Your task to perform on an android device: Search for apple airpods pro on target.com, select the first entry, add it to the cart, then select checkout. Image 0: 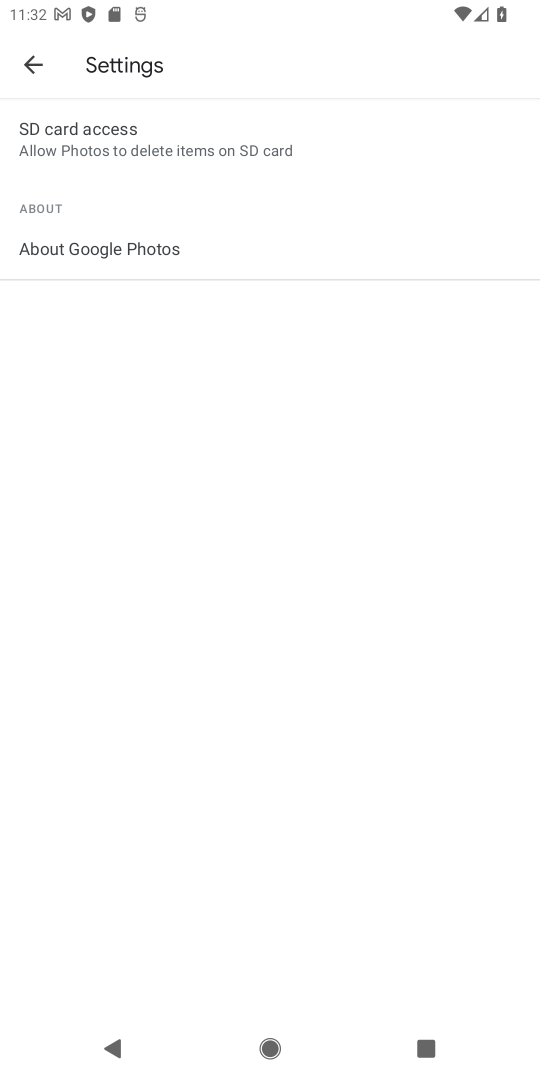
Step 0: press home button
Your task to perform on an android device: Search for apple airpods pro on target.com, select the first entry, add it to the cart, then select checkout. Image 1: 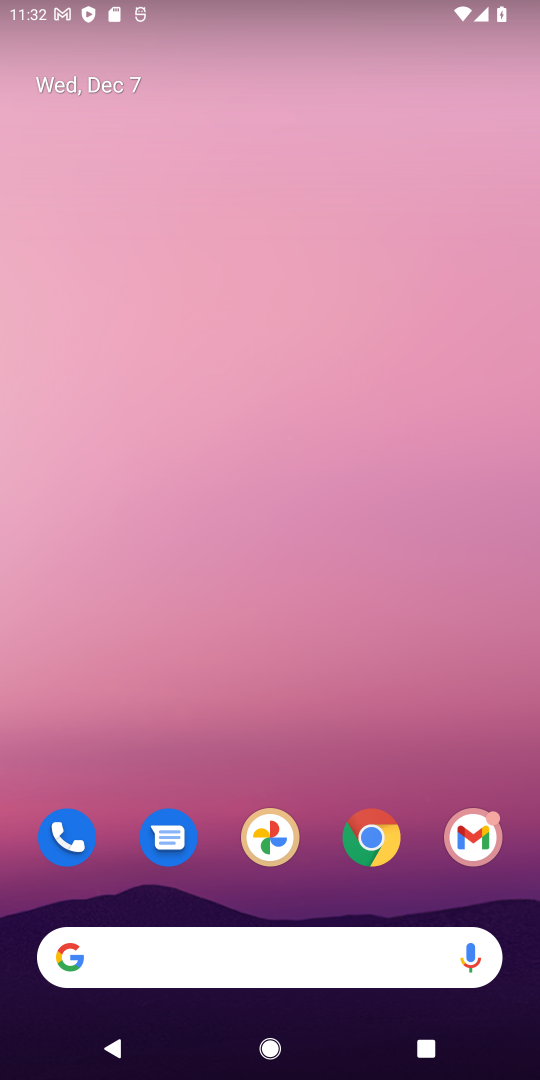
Step 1: click (371, 837)
Your task to perform on an android device: Search for apple airpods pro on target.com, select the first entry, add it to the cart, then select checkout. Image 2: 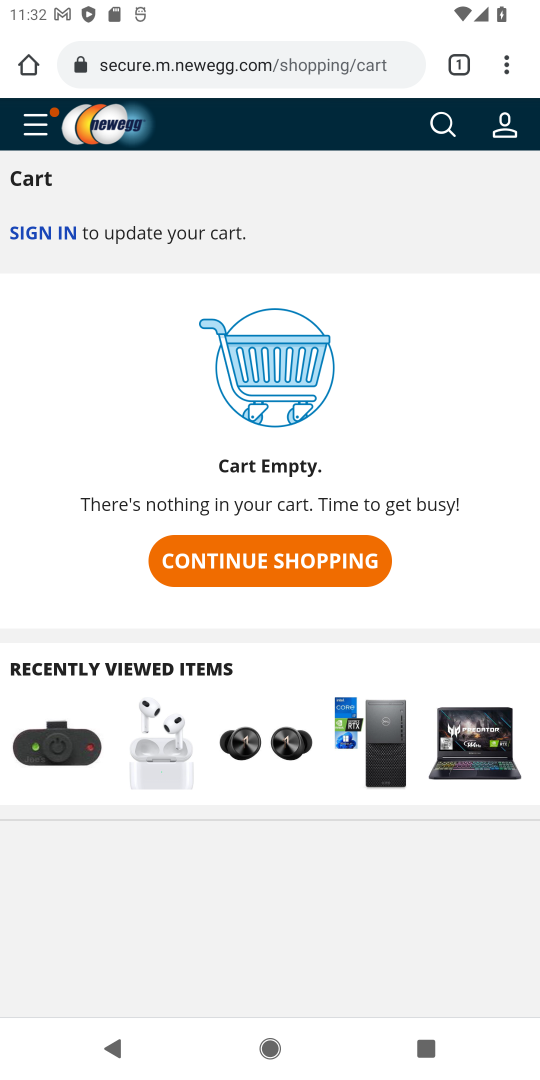
Step 2: click (282, 69)
Your task to perform on an android device: Search for apple airpods pro on target.com, select the first entry, add it to the cart, then select checkout. Image 3: 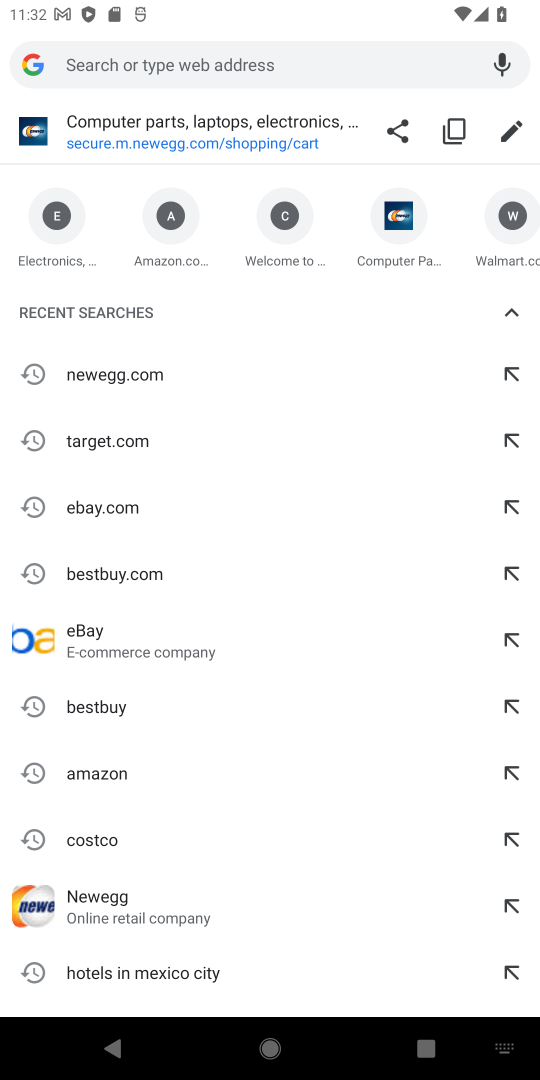
Step 3: click (97, 439)
Your task to perform on an android device: Search for apple airpods pro on target.com, select the first entry, add it to the cart, then select checkout. Image 4: 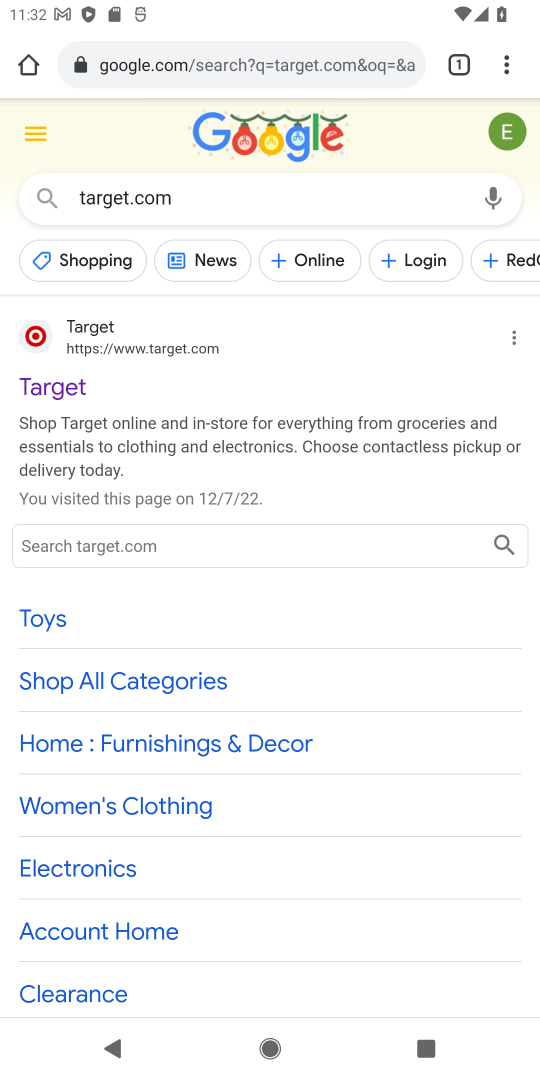
Step 4: click (118, 354)
Your task to perform on an android device: Search for apple airpods pro on target.com, select the first entry, add it to the cart, then select checkout. Image 5: 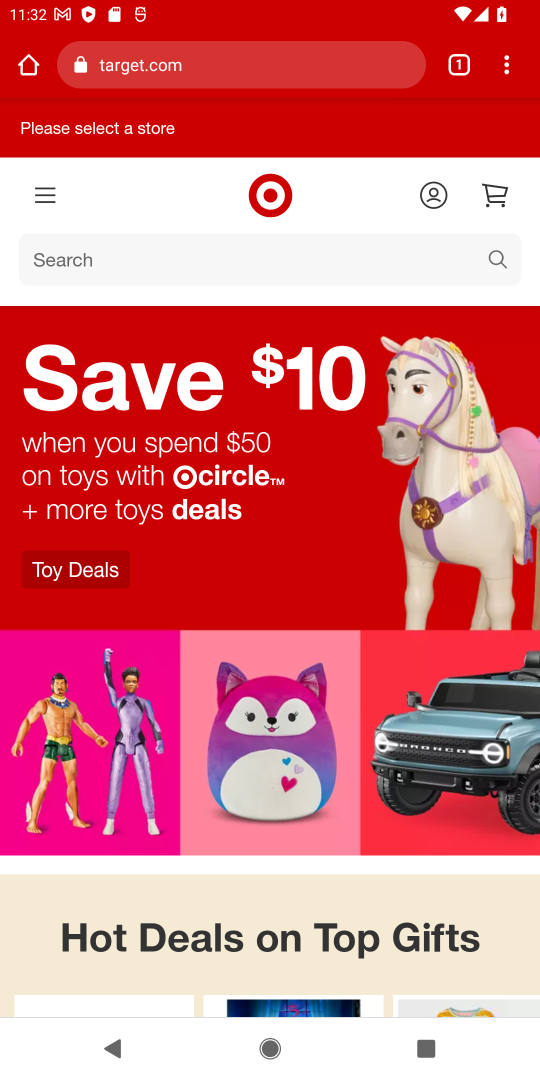
Step 5: click (498, 253)
Your task to perform on an android device: Search for apple airpods pro on target.com, select the first entry, add it to the cart, then select checkout. Image 6: 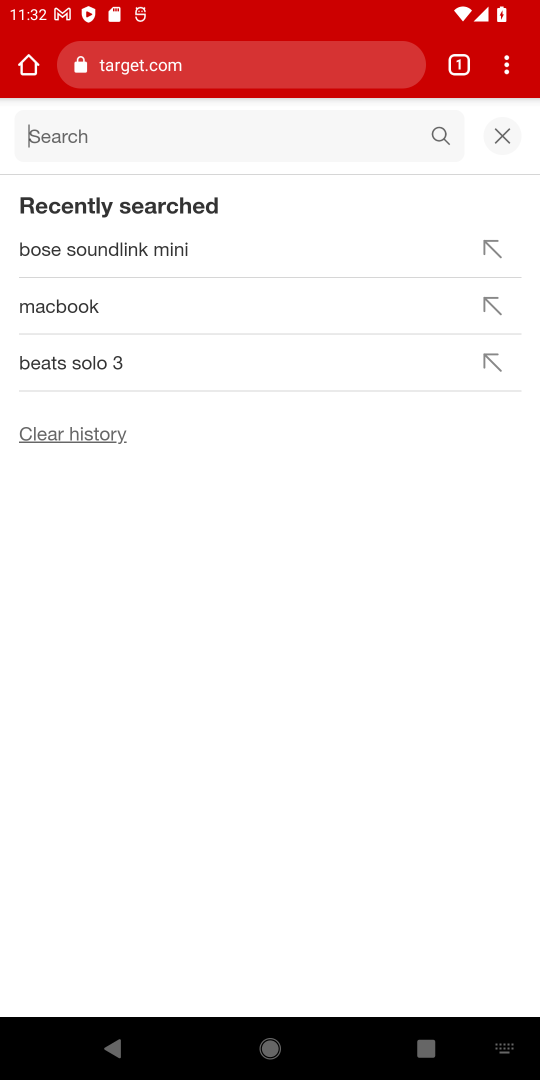
Step 6: type "apple airpods pro"
Your task to perform on an android device: Search for apple airpods pro on target.com, select the first entry, add it to the cart, then select checkout. Image 7: 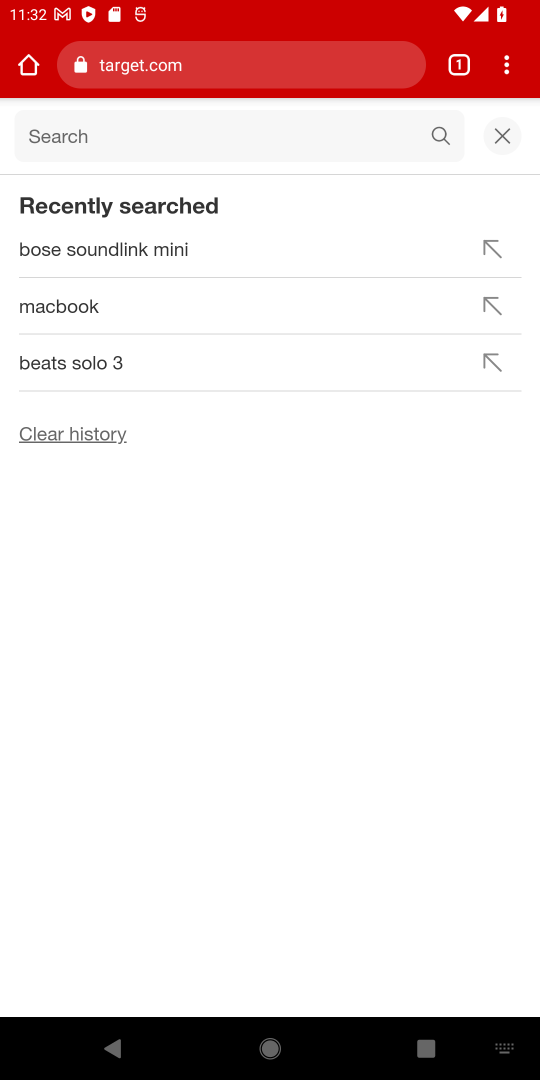
Step 7: press enter
Your task to perform on an android device: Search for apple airpods pro on target.com, select the first entry, add it to the cart, then select checkout. Image 8: 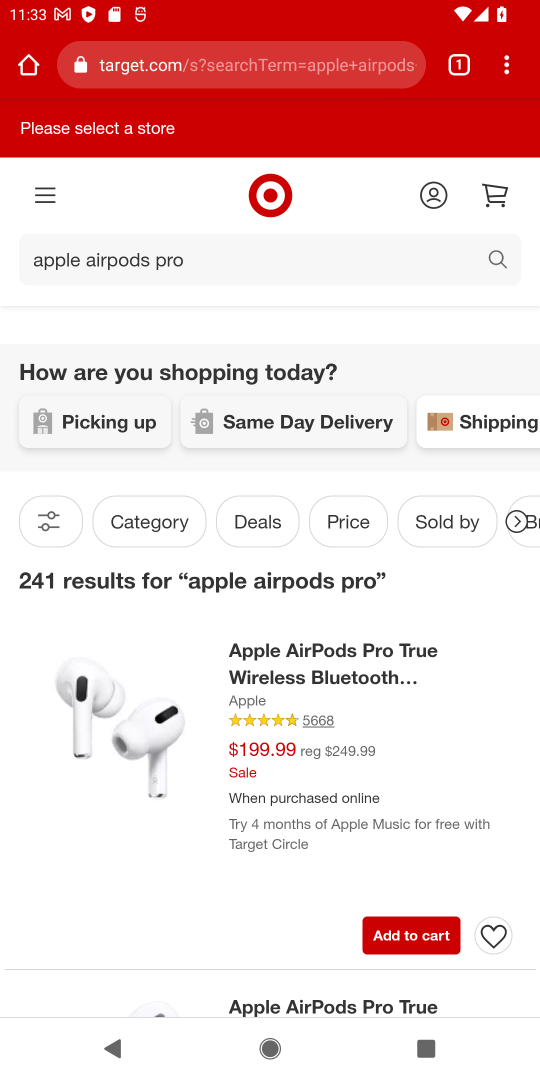
Step 8: click (118, 684)
Your task to perform on an android device: Search for apple airpods pro on target.com, select the first entry, add it to the cart, then select checkout. Image 9: 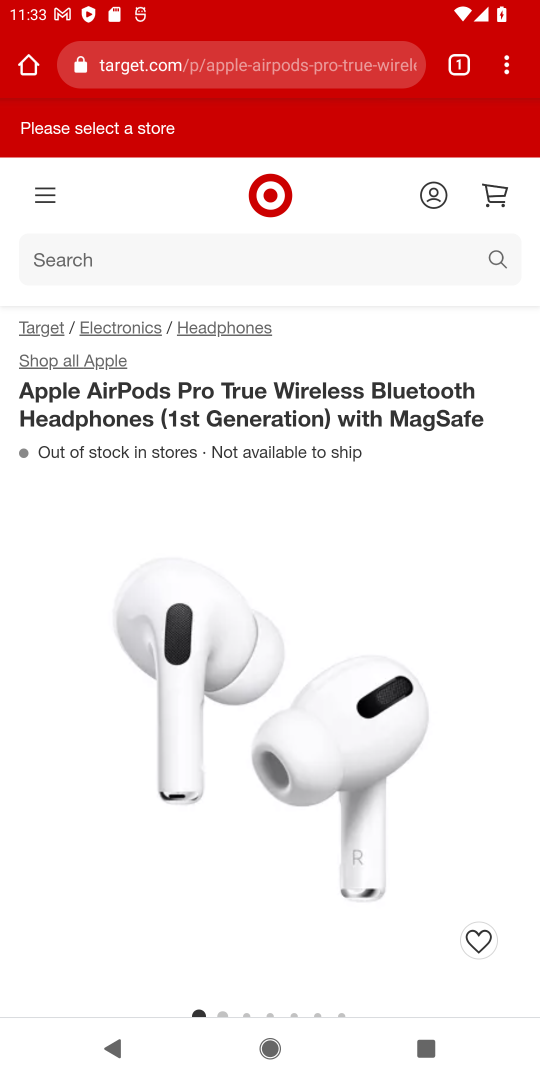
Step 9: drag from (375, 775) to (452, 242)
Your task to perform on an android device: Search for apple airpods pro on target.com, select the first entry, add it to the cart, then select checkout. Image 10: 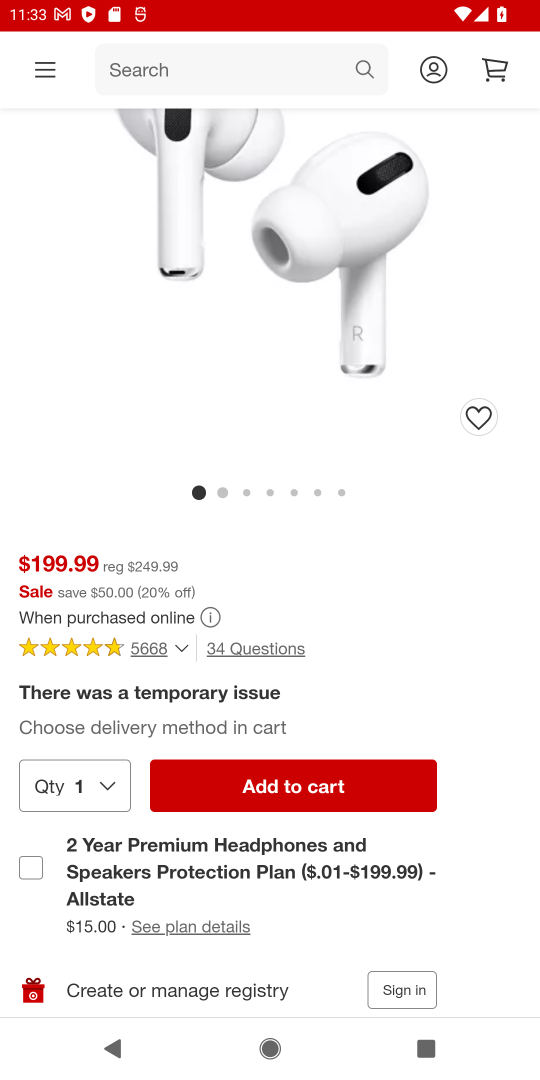
Step 10: click (357, 785)
Your task to perform on an android device: Search for apple airpods pro on target.com, select the first entry, add it to the cart, then select checkout. Image 11: 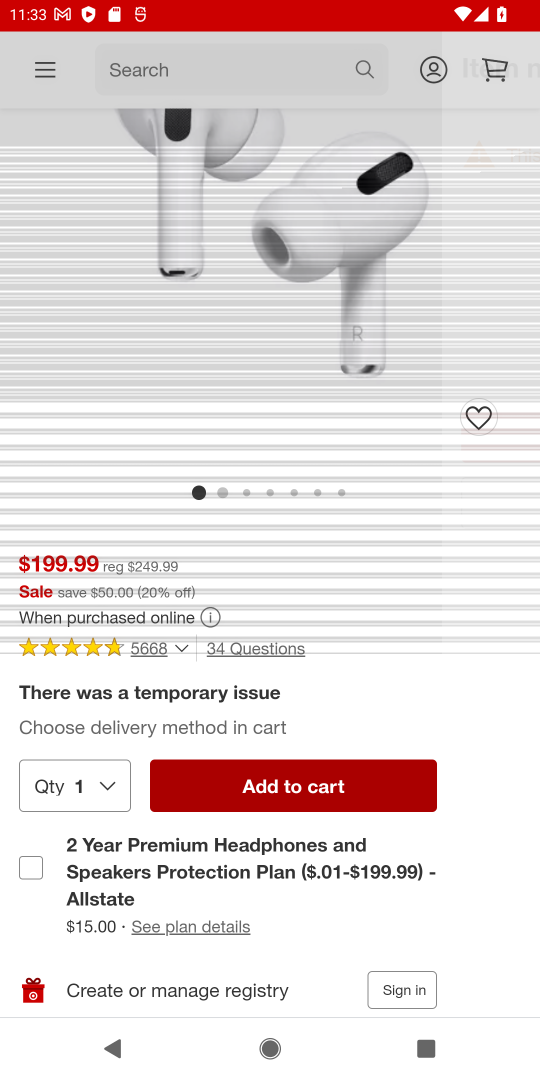
Step 11: click (298, 790)
Your task to perform on an android device: Search for apple airpods pro on target.com, select the first entry, add it to the cart, then select checkout. Image 12: 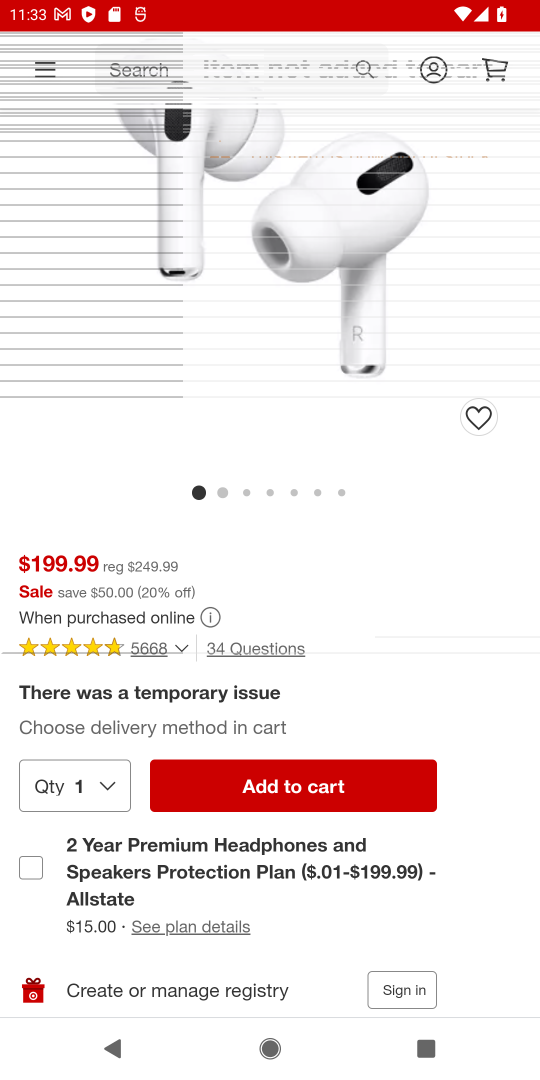
Step 12: click (298, 790)
Your task to perform on an android device: Search for apple airpods pro on target.com, select the first entry, add it to the cart, then select checkout. Image 13: 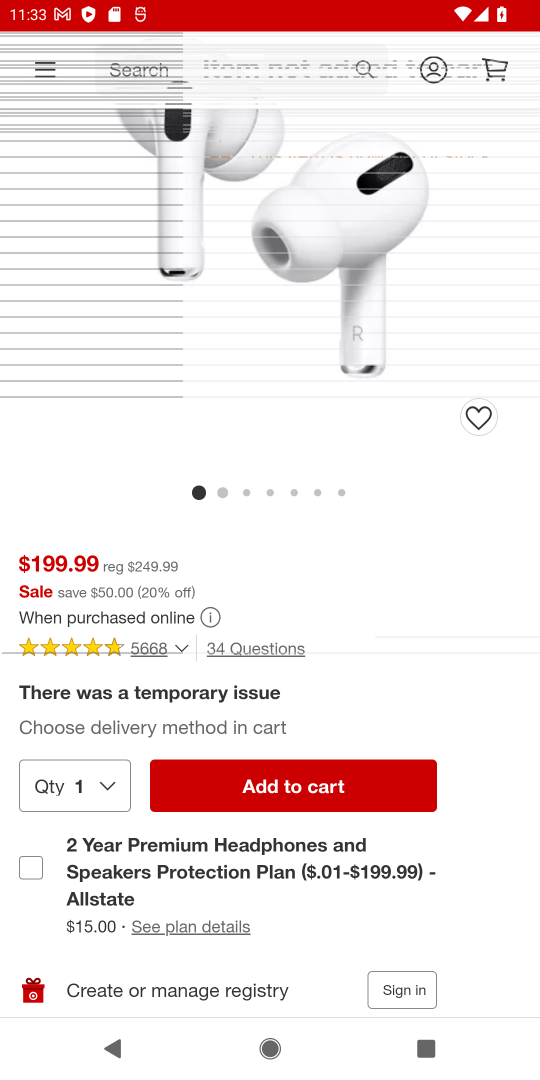
Step 13: click (269, 790)
Your task to perform on an android device: Search for apple airpods pro on target.com, select the first entry, add it to the cart, then select checkout. Image 14: 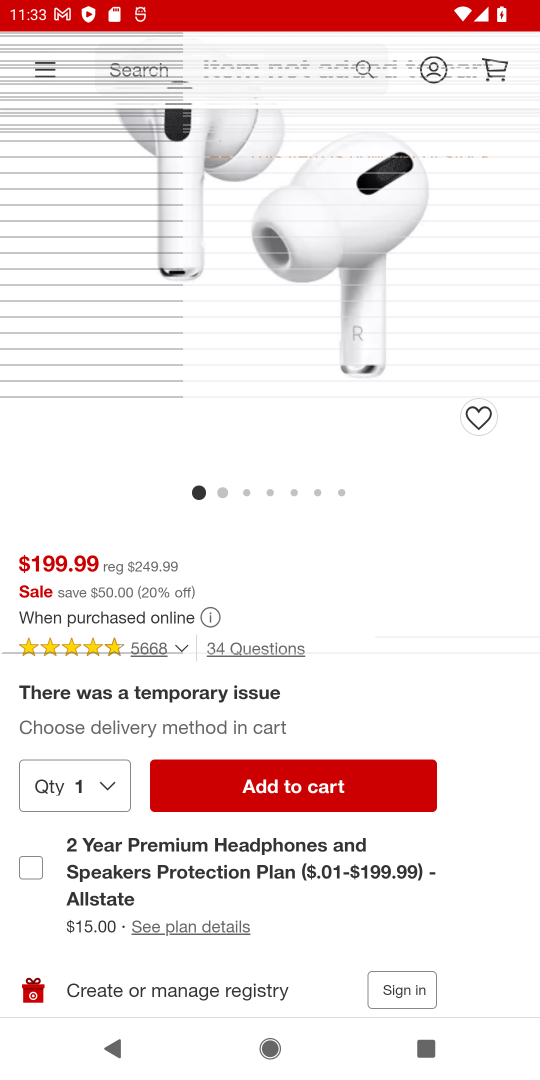
Step 14: press back button
Your task to perform on an android device: Search for apple airpods pro on target.com, select the first entry, add it to the cart, then select checkout. Image 15: 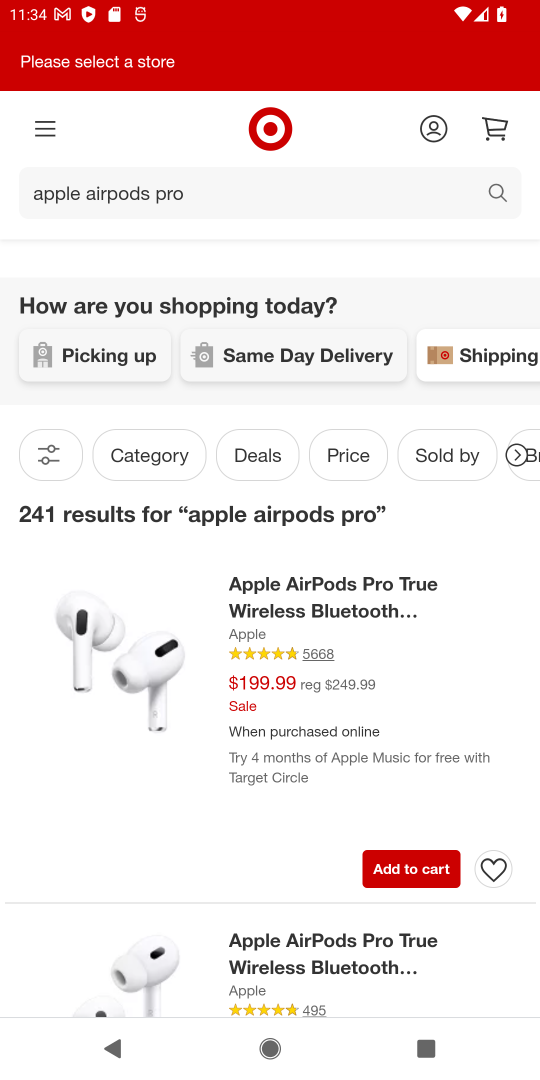
Step 15: click (498, 120)
Your task to perform on an android device: Search for apple airpods pro on target.com, select the first entry, add it to the cart, then select checkout. Image 16: 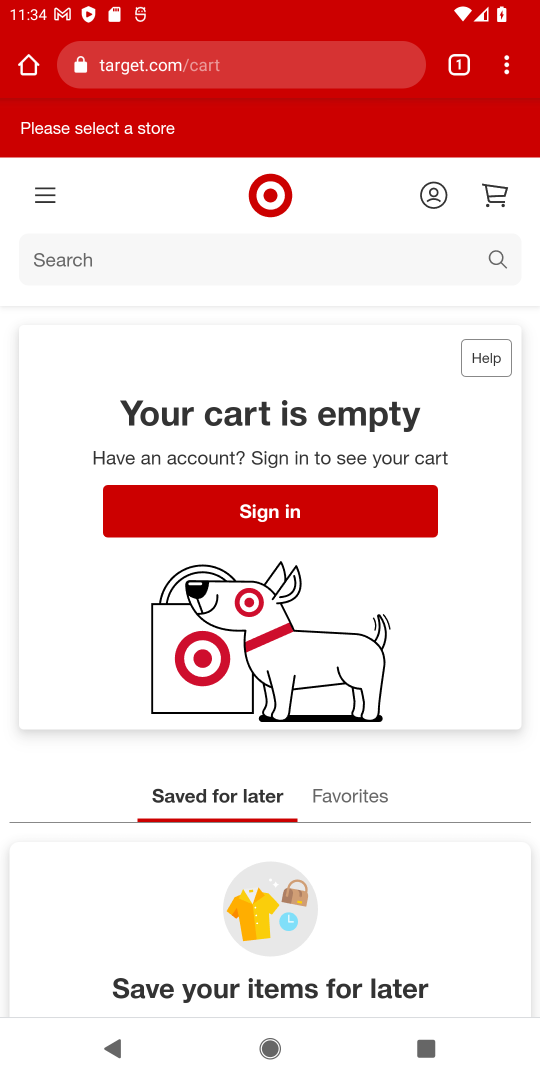
Step 16: click (497, 261)
Your task to perform on an android device: Search for apple airpods pro on target.com, select the first entry, add it to the cart, then select checkout. Image 17: 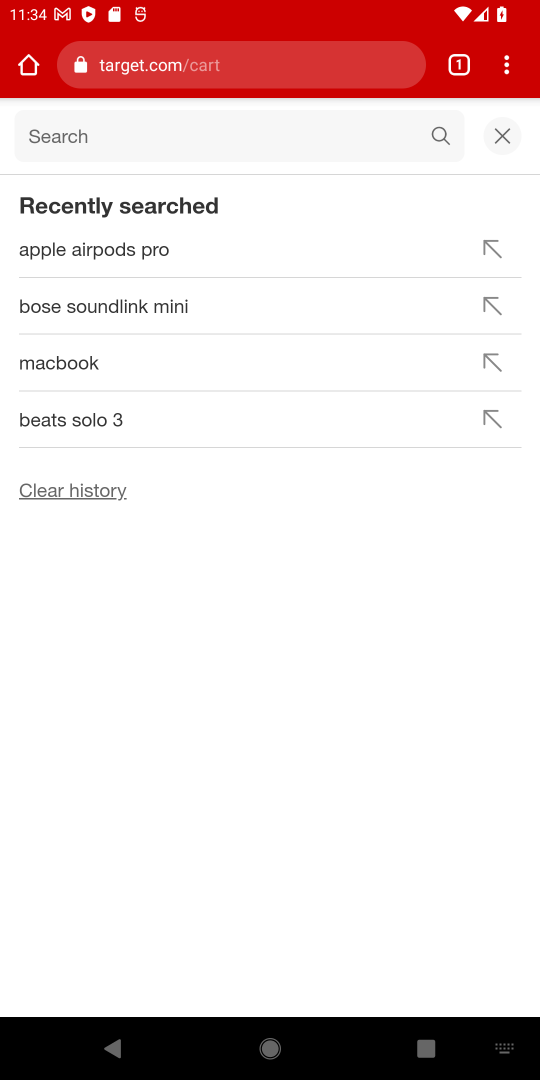
Step 17: click (103, 255)
Your task to perform on an android device: Search for apple airpods pro on target.com, select the first entry, add it to the cart, then select checkout. Image 18: 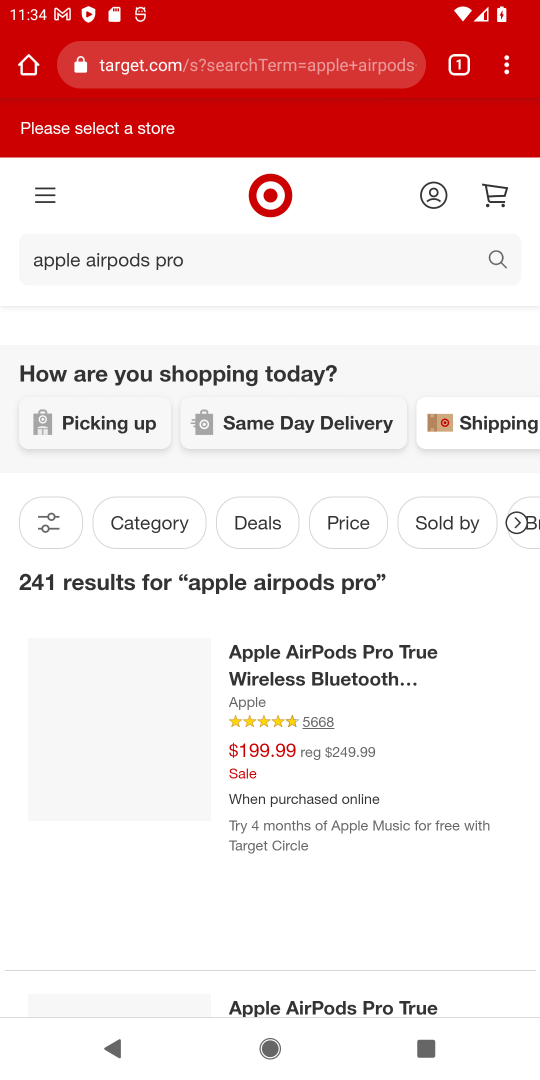
Step 18: drag from (435, 711) to (406, 503)
Your task to perform on an android device: Search for apple airpods pro on target.com, select the first entry, add it to the cart, then select checkout. Image 19: 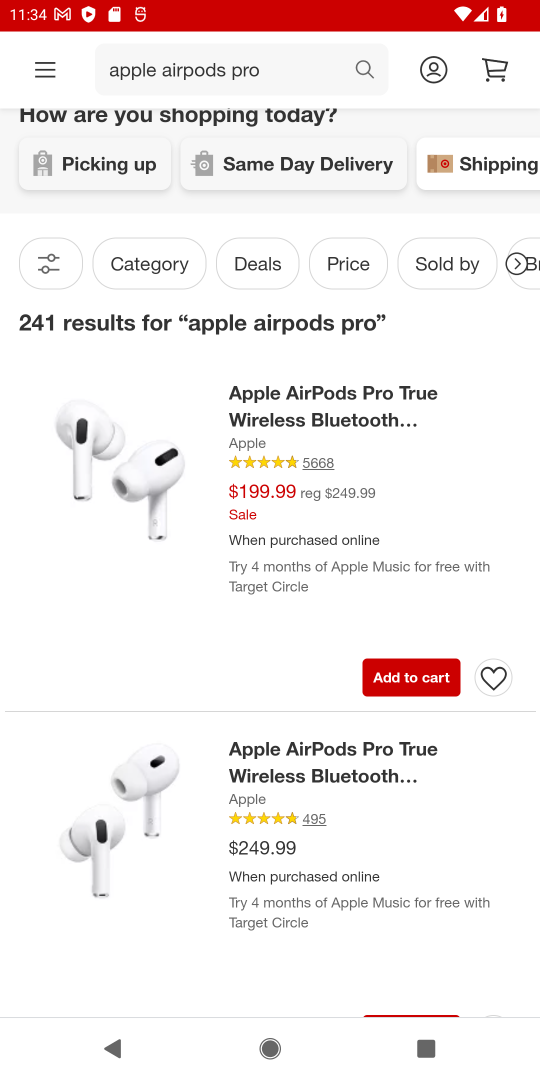
Step 19: click (114, 464)
Your task to perform on an android device: Search for apple airpods pro on target.com, select the first entry, add it to the cart, then select checkout. Image 20: 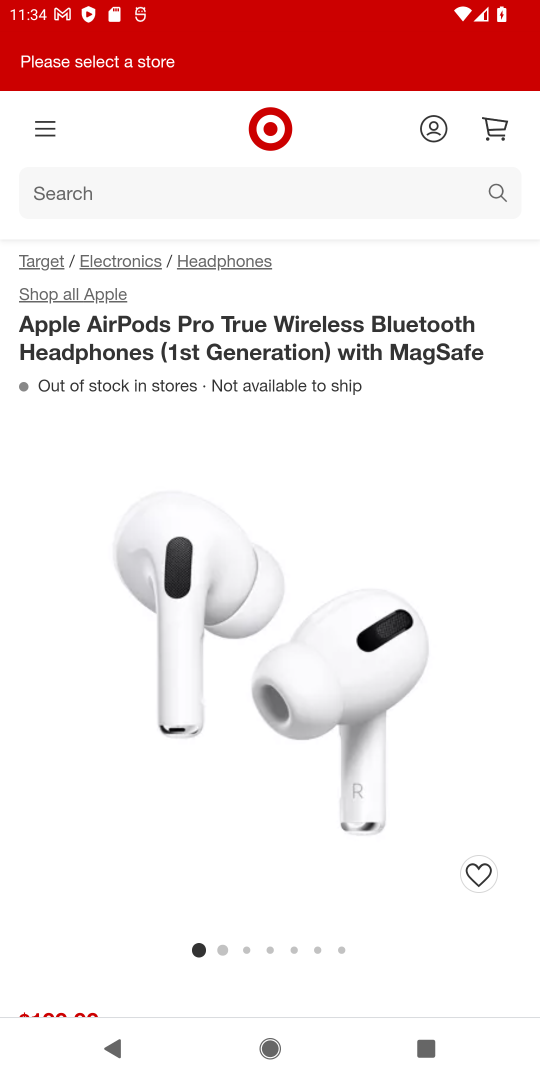
Step 20: drag from (375, 604) to (456, 102)
Your task to perform on an android device: Search for apple airpods pro on target.com, select the first entry, add it to the cart, then select checkout. Image 21: 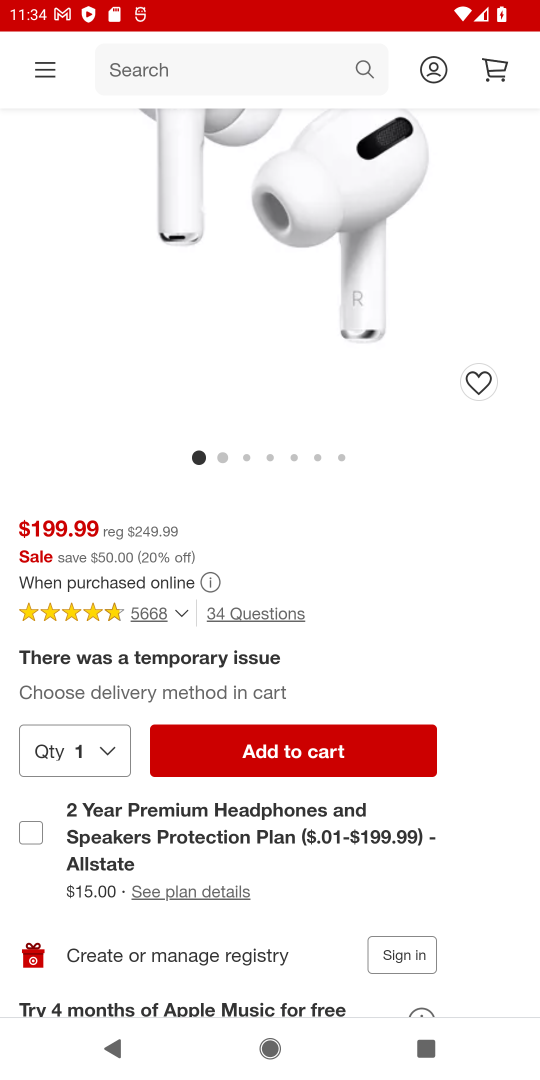
Step 21: click (318, 742)
Your task to perform on an android device: Search for apple airpods pro on target.com, select the first entry, add it to the cart, then select checkout. Image 22: 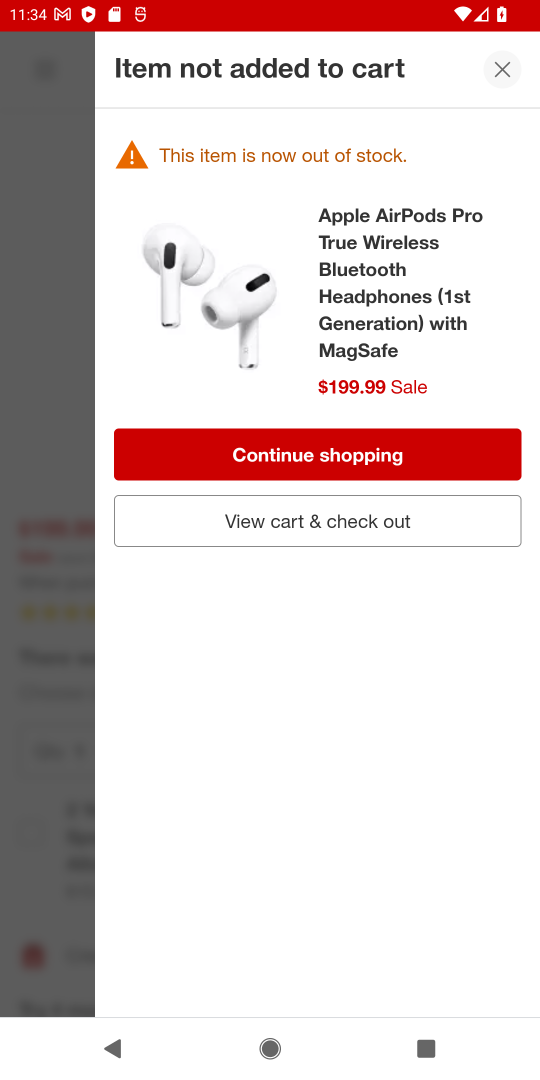
Step 22: click (502, 69)
Your task to perform on an android device: Search for apple airpods pro on target.com, select the first entry, add it to the cart, then select checkout. Image 23: 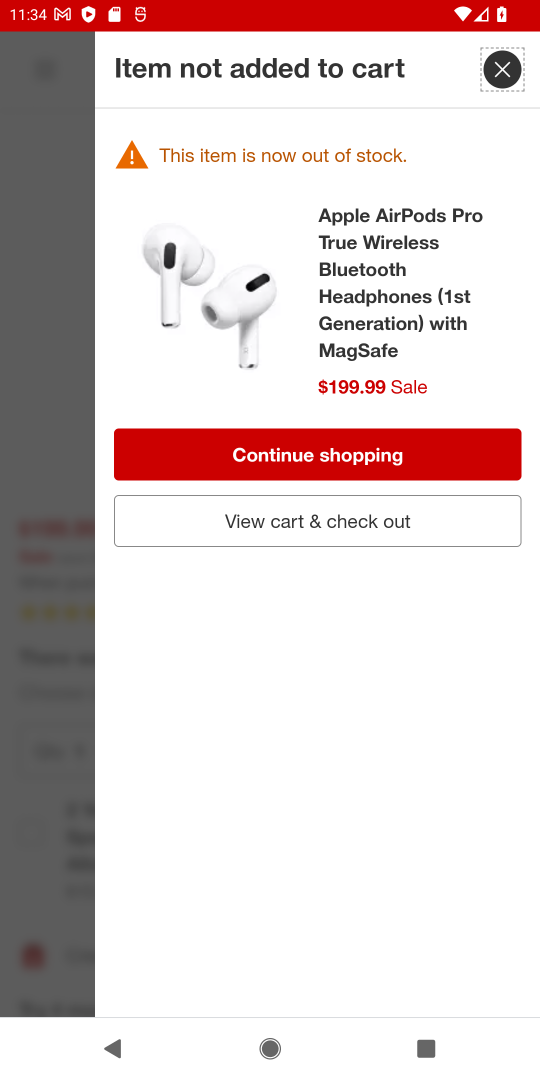
Step 23: click (512, 64)
Your task to perform on an android device: Search for apple airpods pro on target.com, select the first entry, add it to the cart, then select checkout. Image 24: 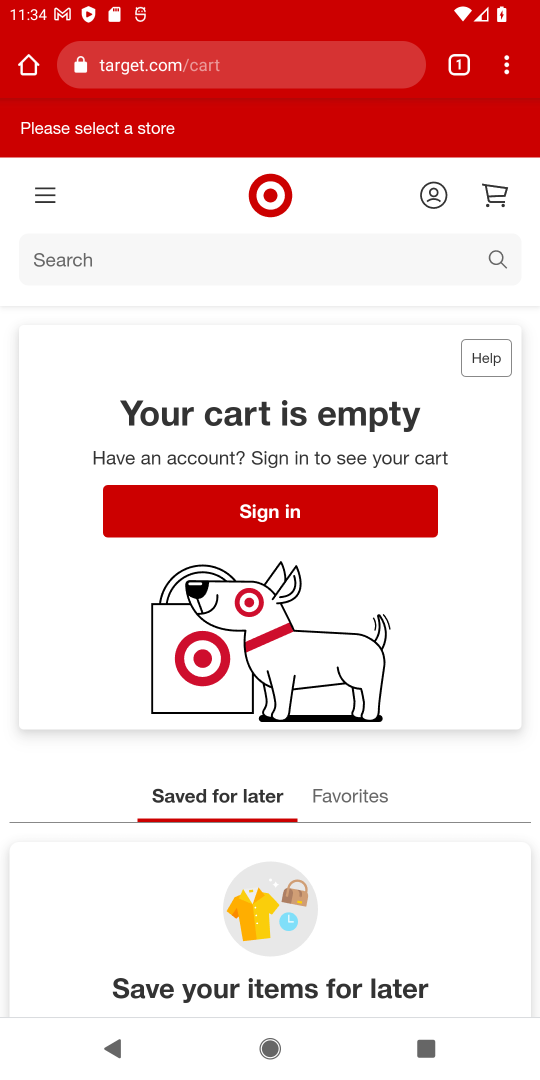
Step 24: click (500, 256)
Your task to perform on an android device: Search for apple airpods pro on target.com, select the first entry, add it to the cart, then select checkout. Image 25: 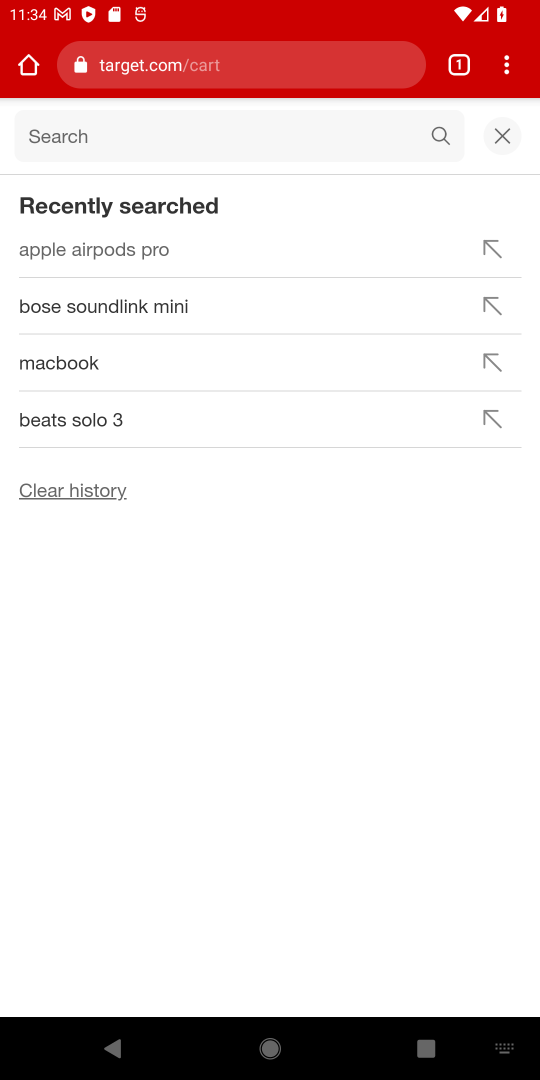
Step 25: click (139, 251)
Your task to perform on an android device: Search for apple airpods pro on target.com, select the first entry, add it to the cart, then select checkout. Image 26: 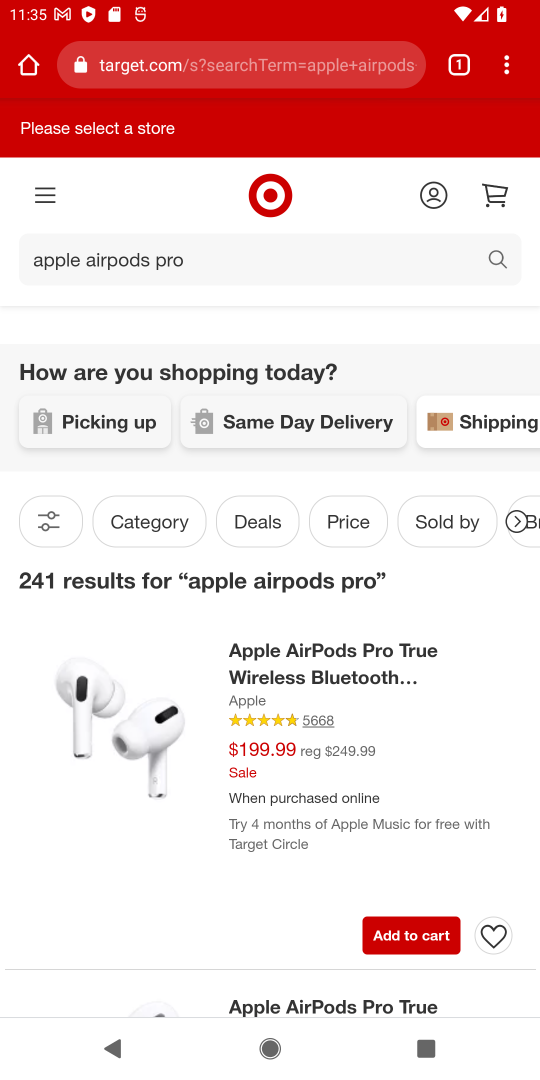
Step 26: drag from (398, 719) to (333, 175)
Your task to perform on an android device: Search for apple airpods pro on target.com, select the first entry, add it to the cart, then select checkout. Image 27: 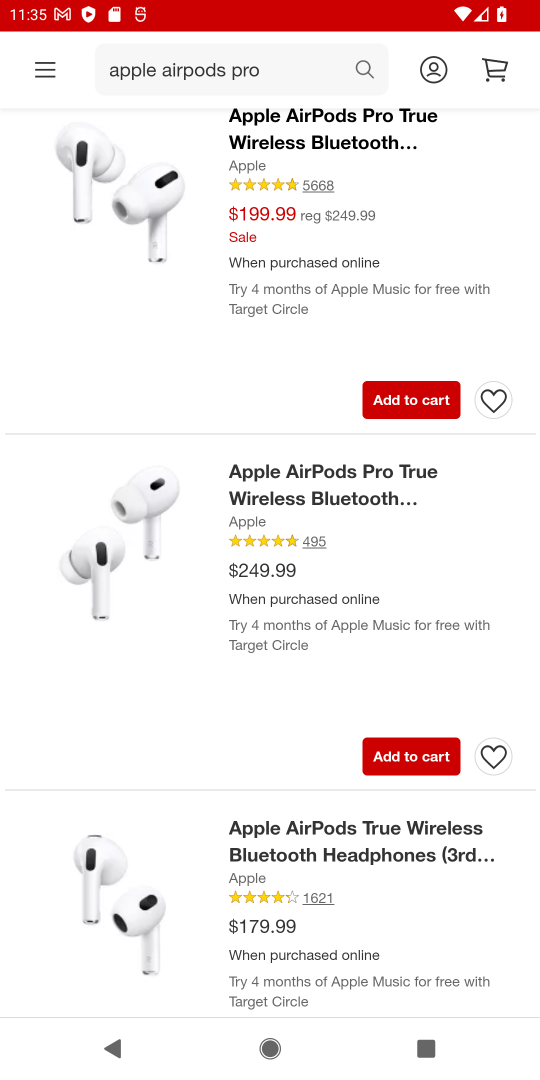
Step 27: click (124, 548)
Your task to perform on an android device: Search for apple airpods pro on target.com, select the first entry, add it to the cart, then select checkout. Image 28: 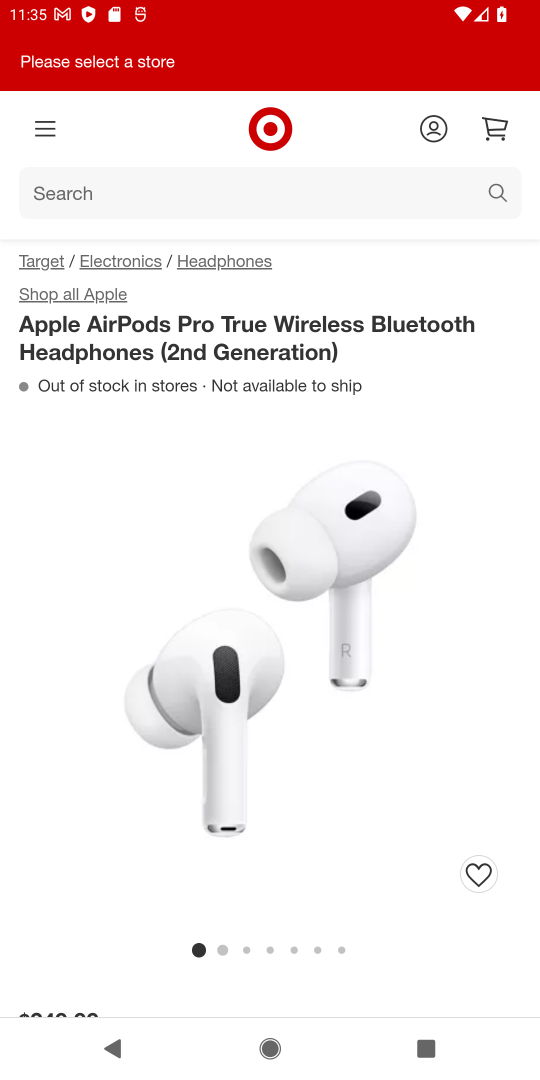
Step 28: drag from (412, 686) to (366, 254)
Your task to perform on an android device: Search for apple airpods pro on target.com, select the first entry, add it to the cart, then select checkout. Image 29: 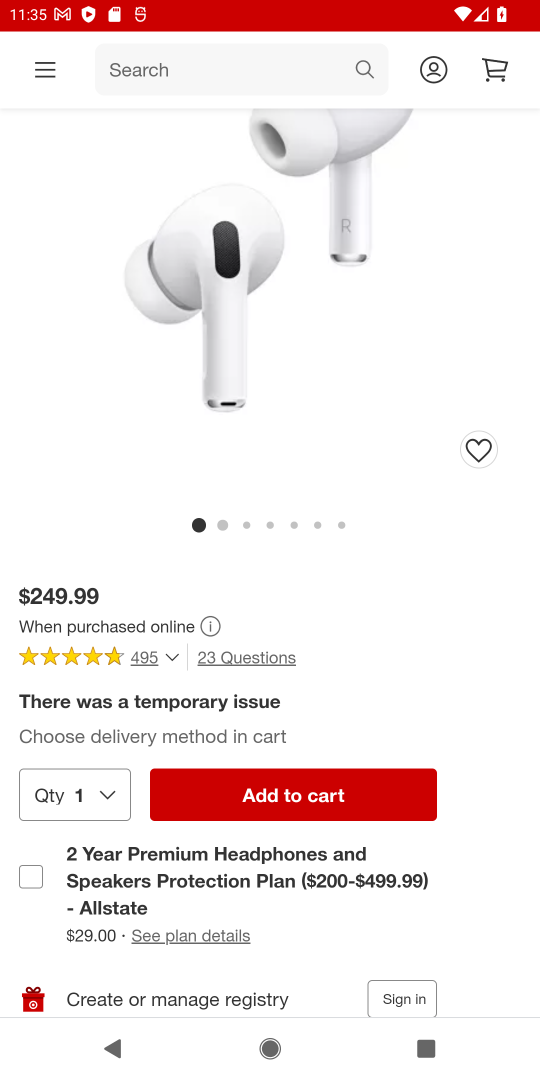
Step 29: click (348, 794)
Your task to perform on an android device: Search for apple airpods pro on target.com, select the first entry, add it to the cart, then select checkout. Image 30: 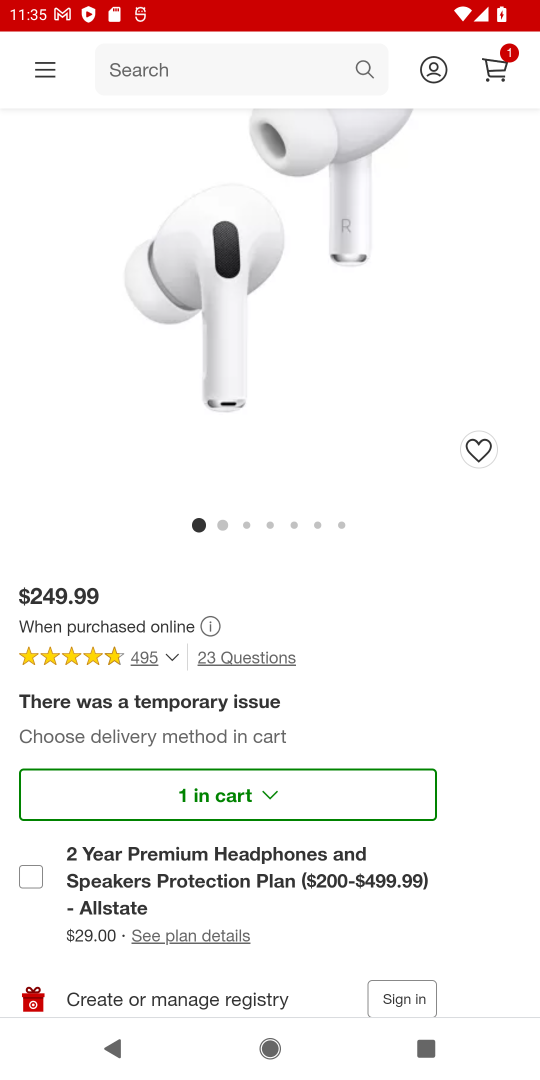
Step 30: click (490, 72)
Your task to perform on an android device: Search for apple airpods pro on target.com, select the first entry, add it to the cart, then select checkout. Image 31: 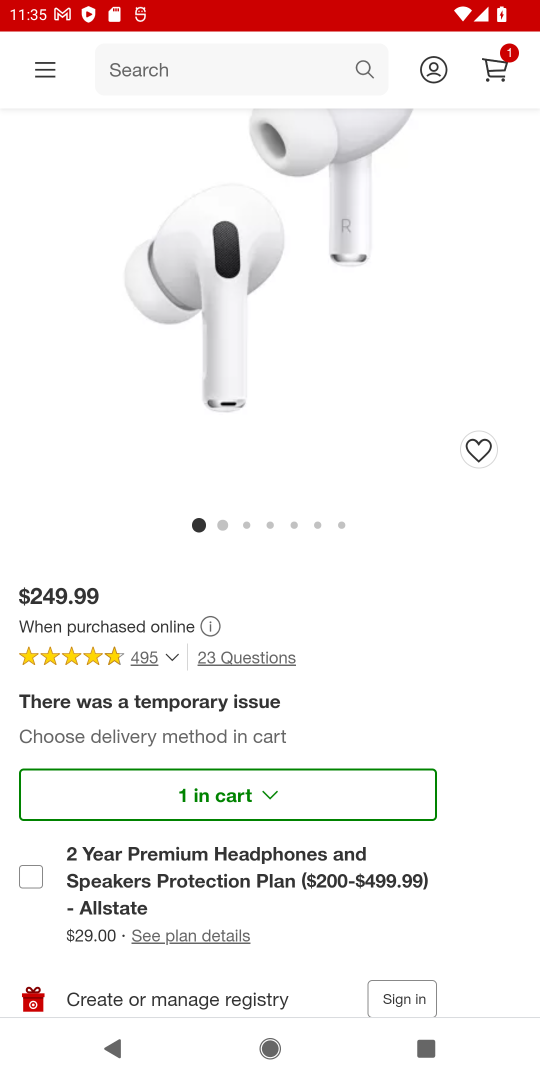
Step 31: click (498, 68)
Your task to perform on an android device: Search for apple airpods pro on target.com, select the first entry, add it to the cart, then select checkout. Image 32: 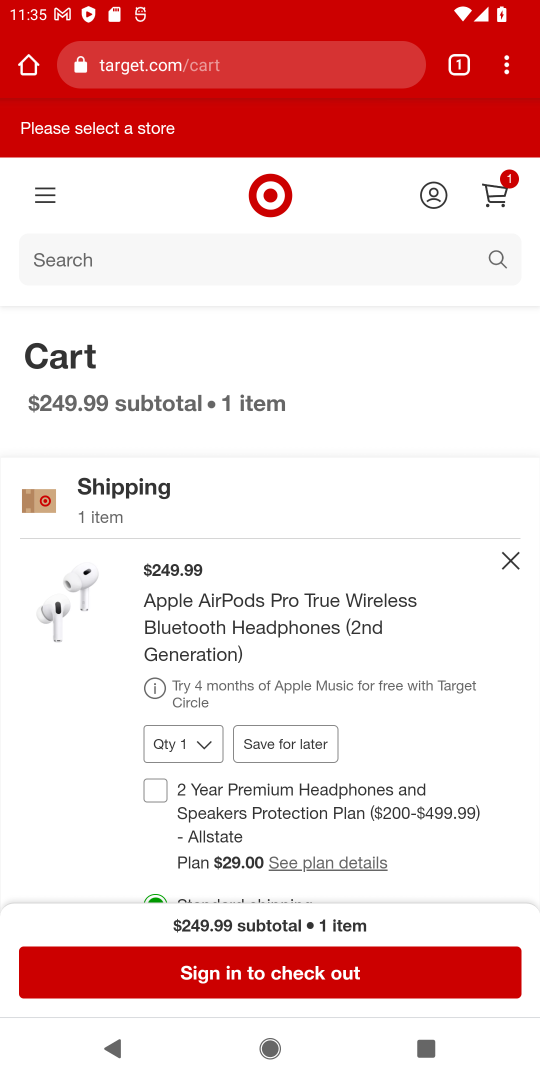
Step 32: click (304, 968)
Your task to perform on an android device: Search for apple airpods pro on target.com, select the first entry, add it to the cart, then select checkout. Image 33: 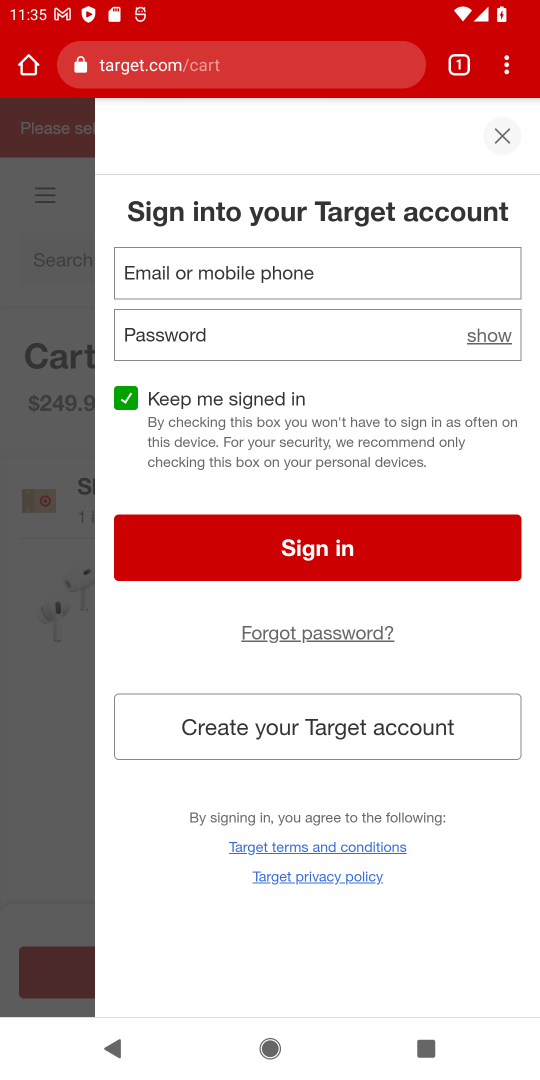
Step 33: task complete